Your task to perform on an android device: turn off picture-in-picture Image 0: 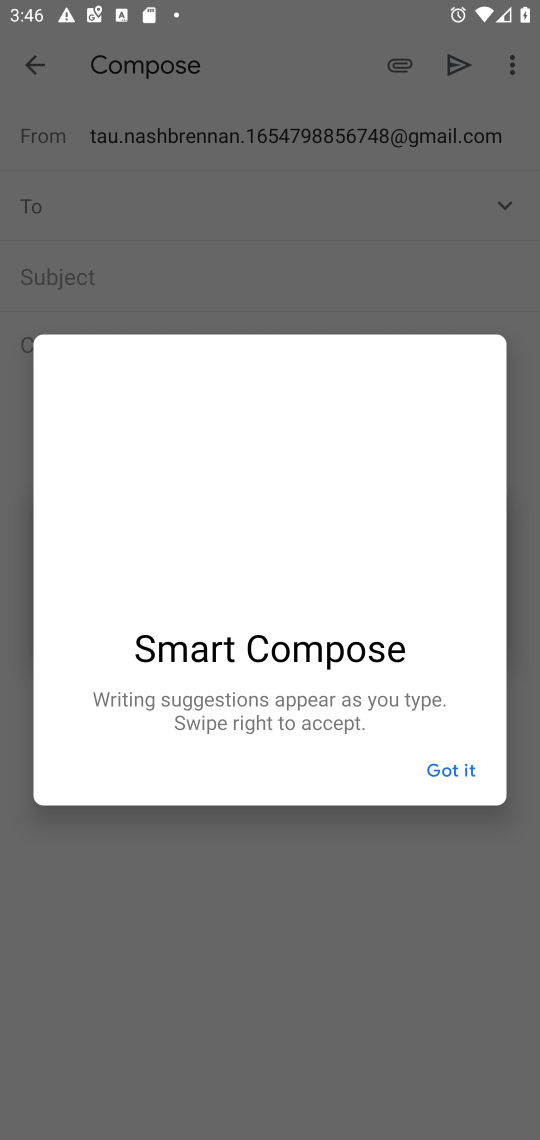
Step 0: press home button
Your task to perform on an android device: turn off picture-in-picture Image 1: 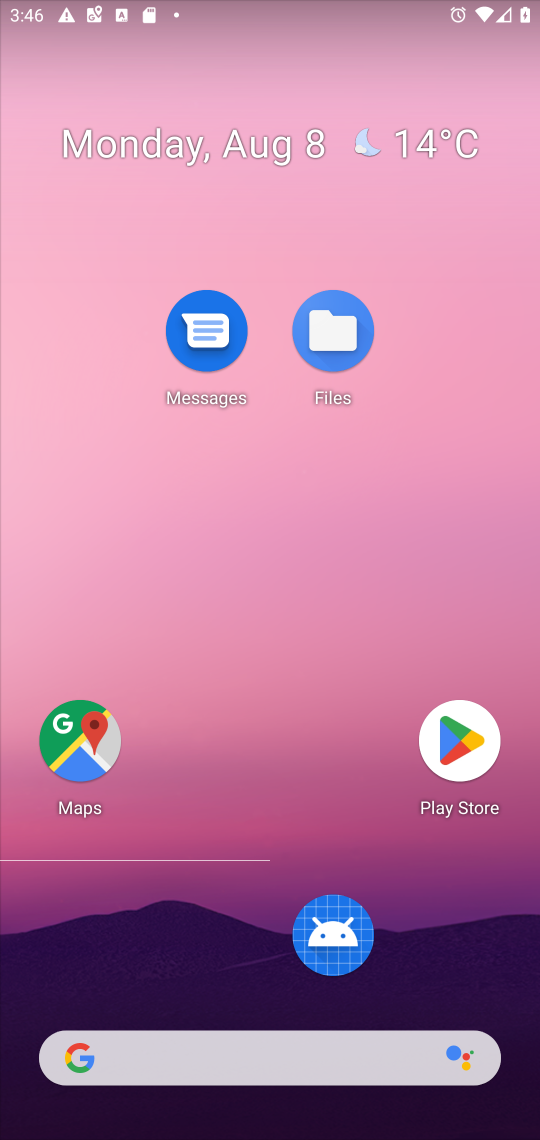
Step 1: drag from (322, 1064) to (413, 402)
Your task to perform on an android device: turn off picture-in-picture Image 2: 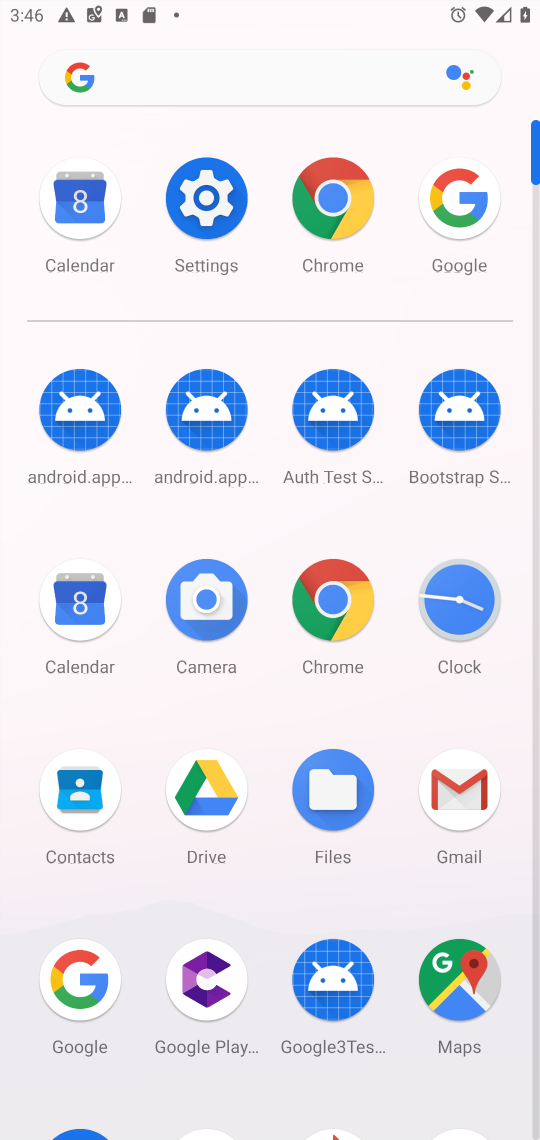
Step 2: click (201, 201)
Your task to perform on an android device: turn off picture-in-picture Image 3: 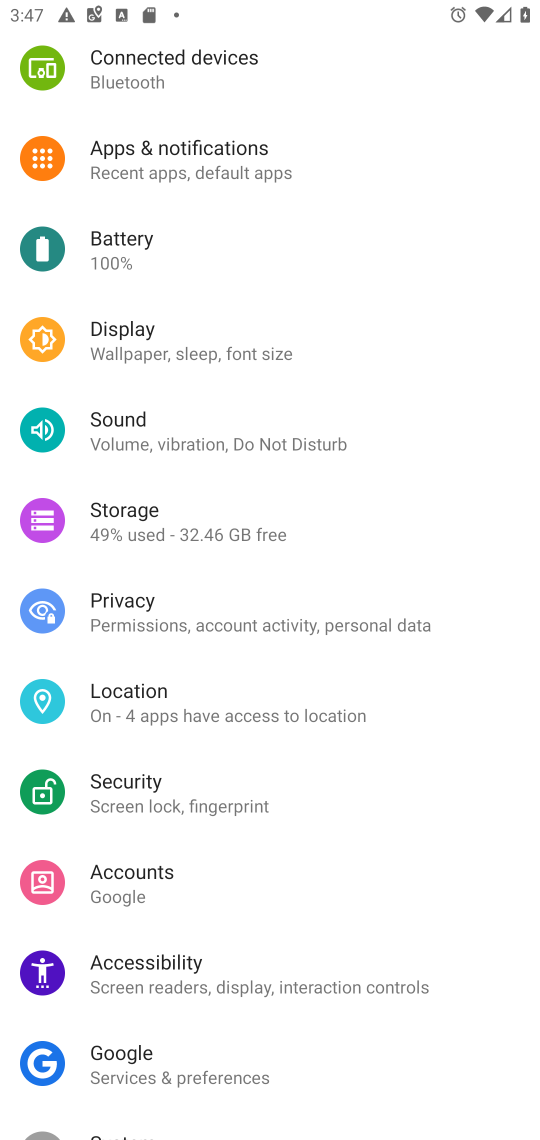
Step 3: click (176, 694)
Your task to perform on an android device: turn off picture-in-picture Image 4: 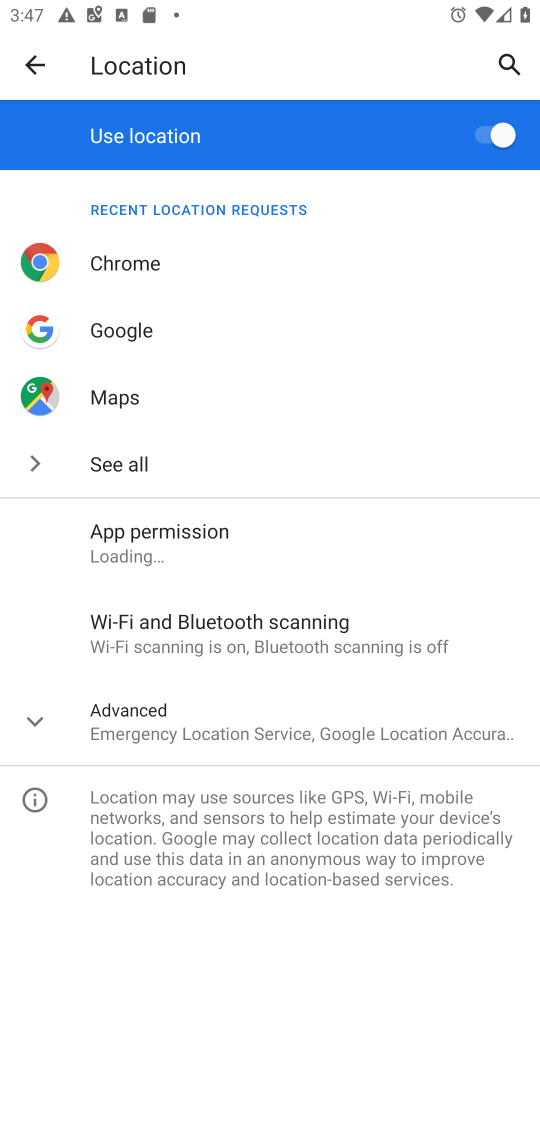
Step 4: click (176, 694)
Your task to perform on an android device: turn off picture-in-picture Image 5: 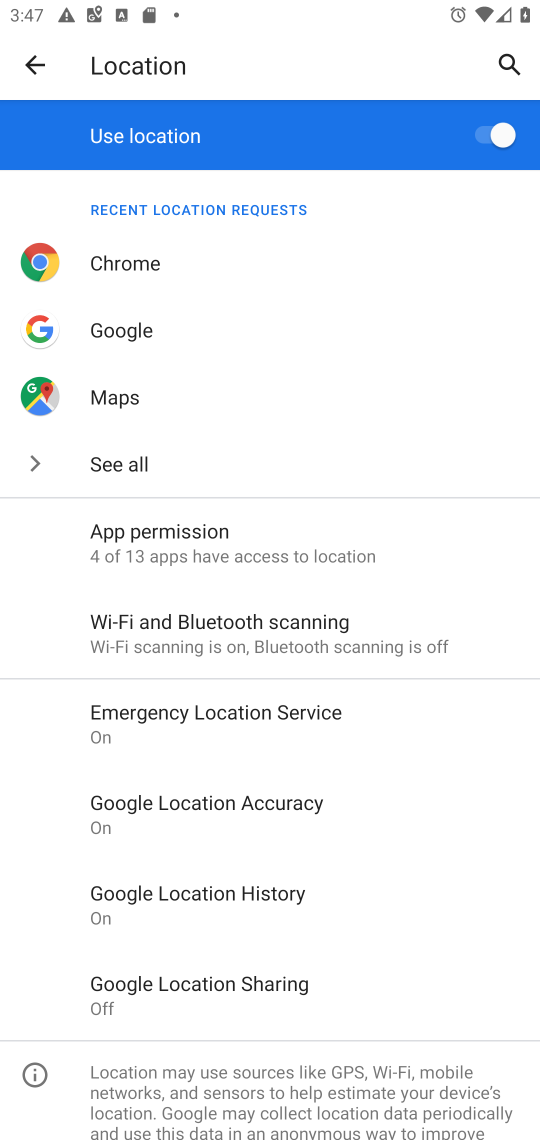
Step 5: press back button
Your task to perform on an android device: turn off picture-in-picture Image 6: 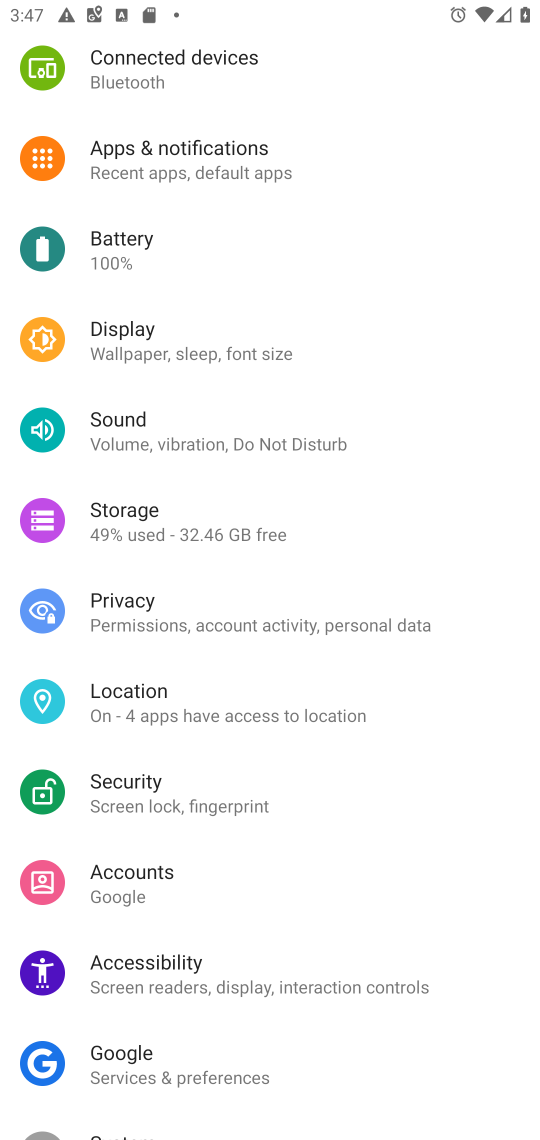
Step 6: click (195, 169)
Your task to perform on an android device: turn off picture-in-picture Image 7: 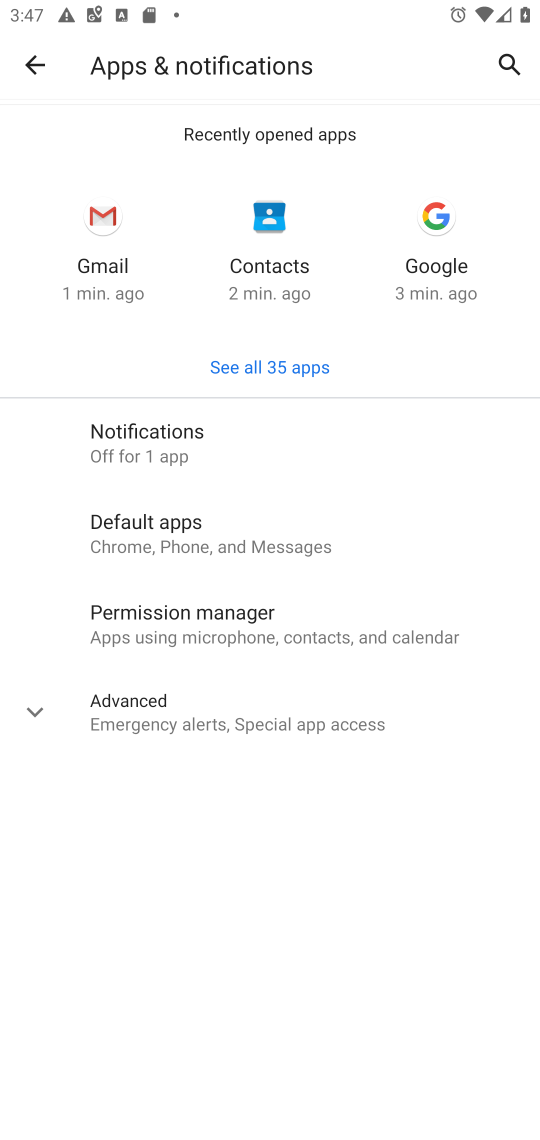
Step 7: click (239, 714)
Your task to perform on an android device: turn off picture-in-picture Image 8: 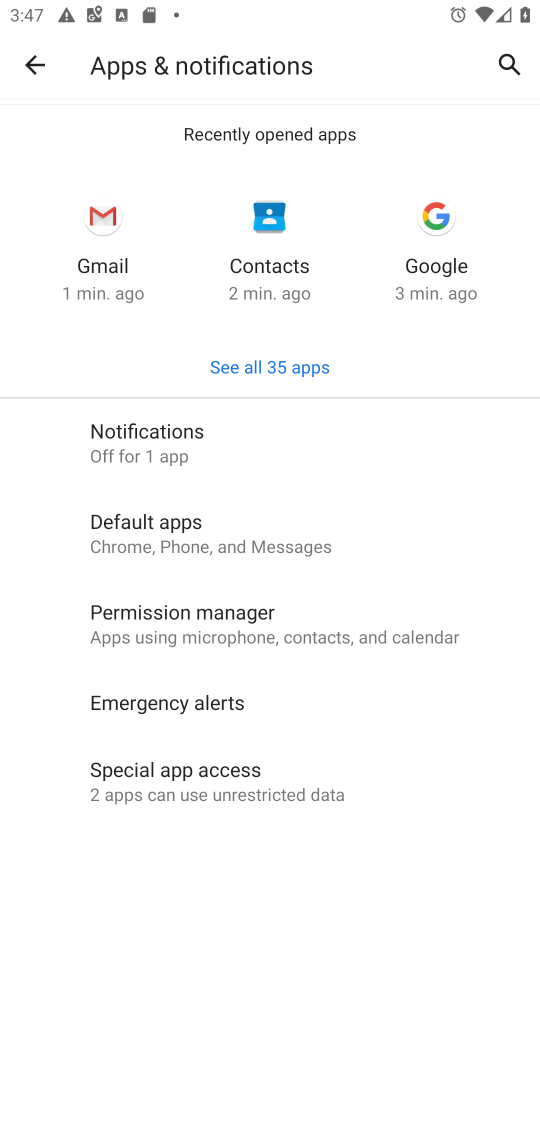
Step 8: click (144, 775)
Your task to perform on an android device: turn off picture-in-picture Image 9: 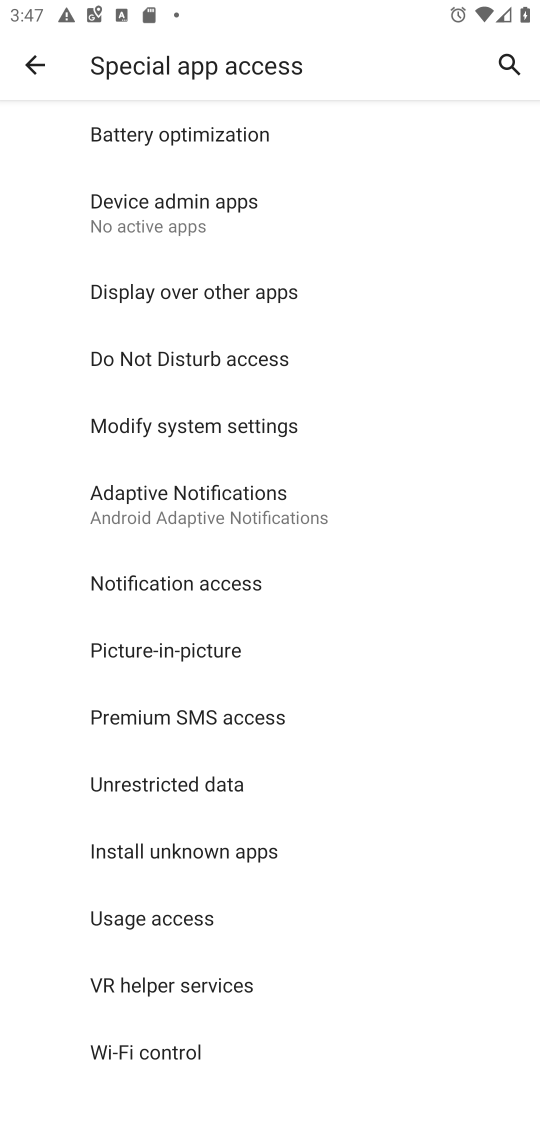
Step 9: click (207, 654)
Your task to perform on an android device: turn off picture-in-picture Image 10: 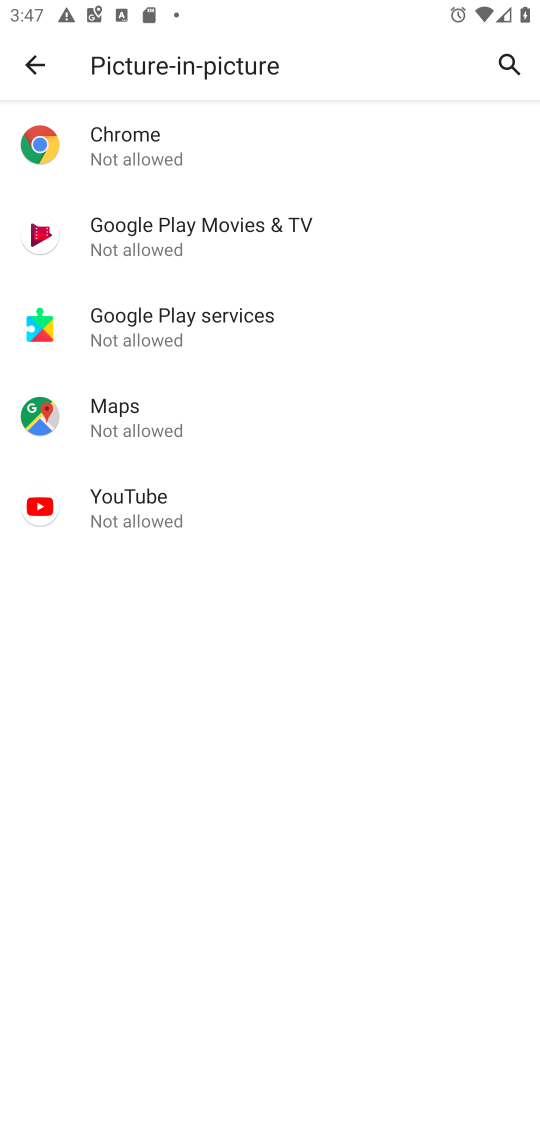
Step 10: task complete